Your task to perform on an android device: Open settings on Google Maps Image 0: 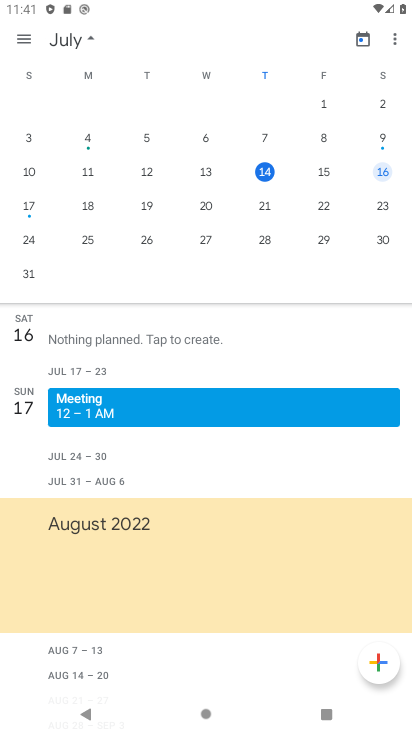
Step 0: press home button
Your task to perform on an android device: Open settings on Google Maps Image 1: 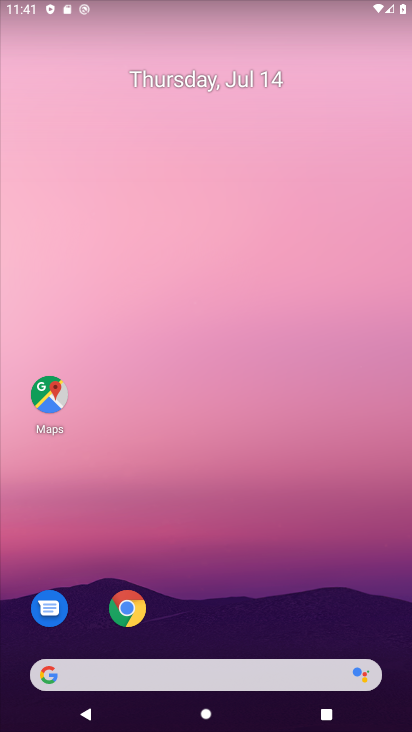
Step 1: drag from (120, 652) to (141, 92)
Your task to perform on an android device: Open settings on Google Maps Image 2: 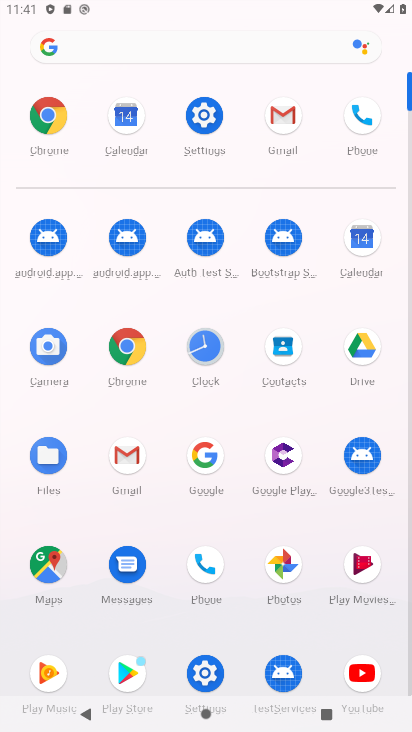
Step 2: click (44, 568)
Your task to perform on an android device: Open settings on Google Maps Image 3: 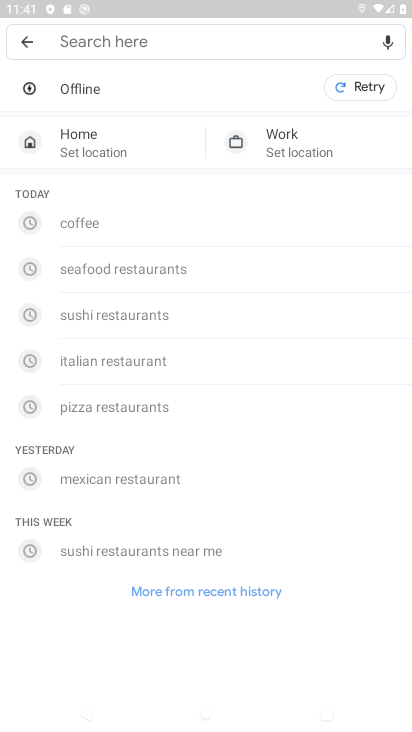
Step 3: press back button
Your task to perform on an android device: Open settings on Google Maps Image 4: 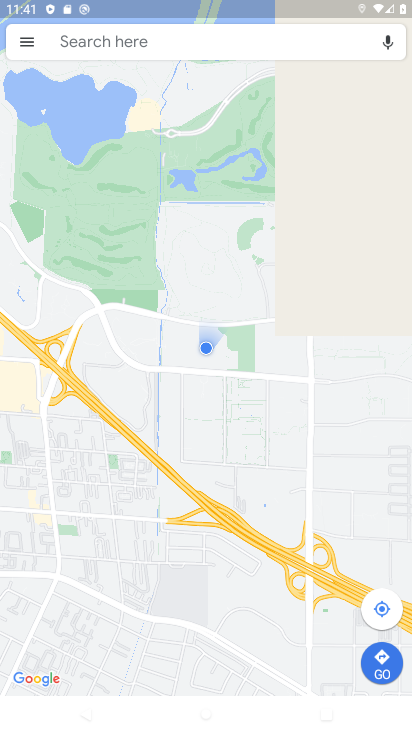
Step 4: click (33, 37)
Your task to perform on an android device: Open settings on Google Maps Image 5: 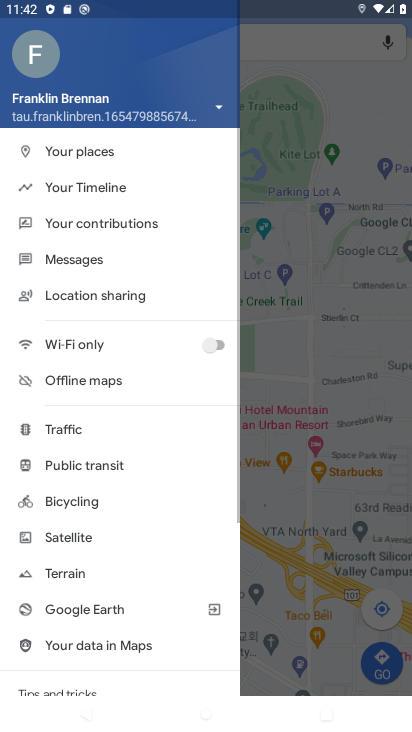
Step 5: drag from (140, 656) to (183, 52)
Your task to perform on an android device: Open settings on Google Maps Image 6: 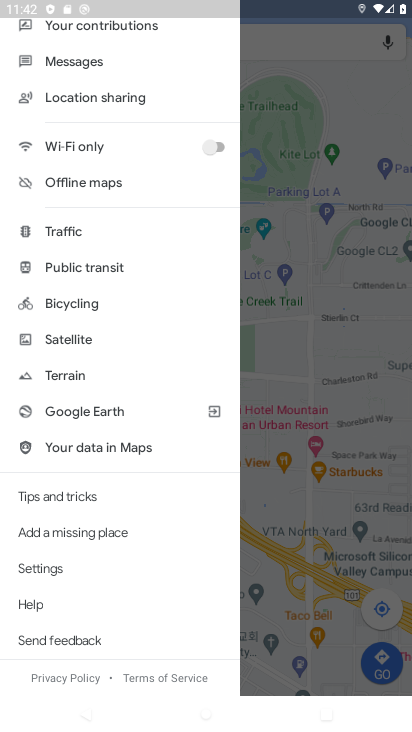
Step 6: drag from (110, 200) to (104, 557)
Your task to perform on an android device: Open settings on Google Maps Image 7: 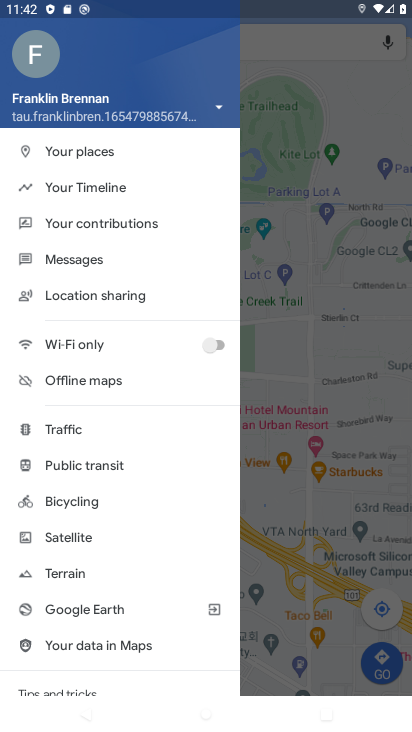
Step 7: click (114, 184)
Your task to perform on an android device: Open settings on Google Maps Image 8: 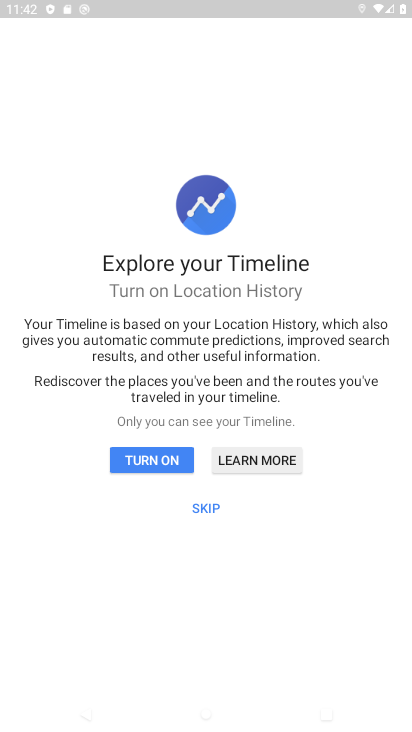
Step 8: click (210, 507)
Your task to perform on an android device: Open settings on Google Maps Image 9: 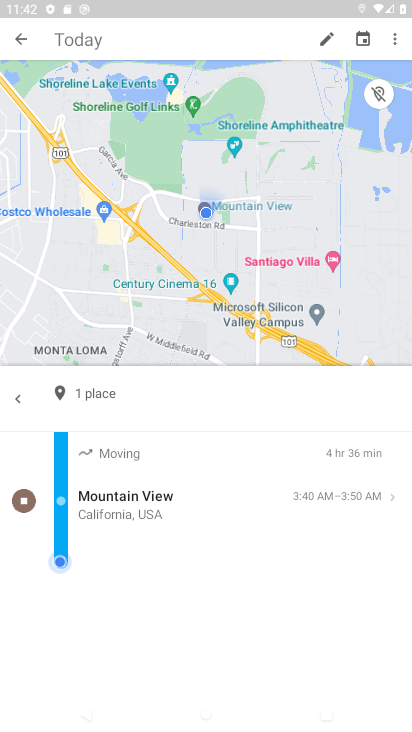
Step 9: click (399, 36)
Your task to perform on an android device: Open settings on Google Maps Image 10: 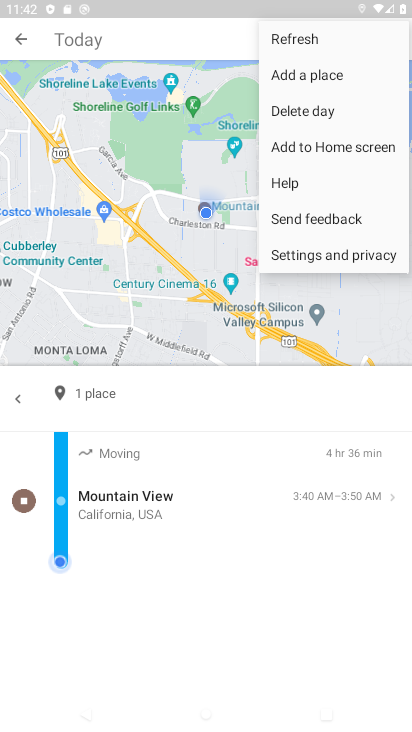
Step 10: click (316, 263)
Your task to perform on an android device: Open settings on Google Maps Image 11: 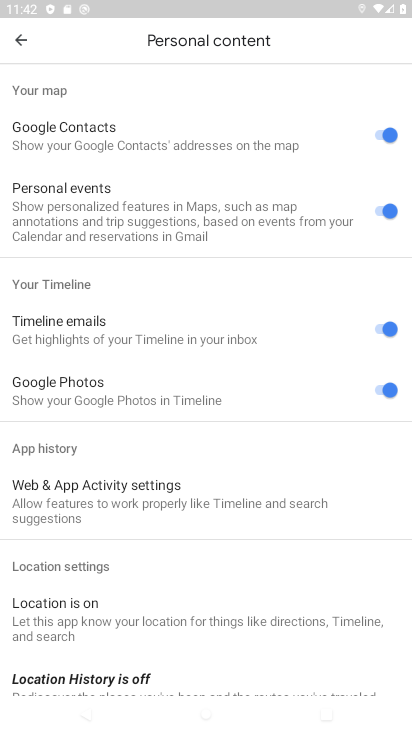
Step 11: task complete